Your task to perform on an android device: Open the stopwatch Image 0: 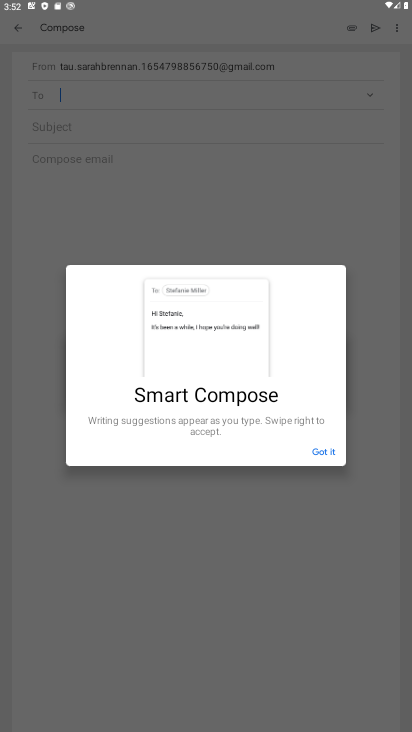
Step 0: press home button
Your task to perform on an android device: Open the stopwatch Image 1: 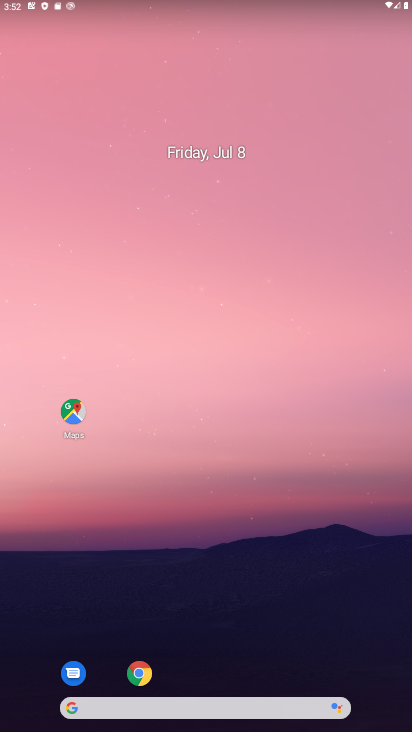
Step 1: drag from (216, 645) to (246, 56)
Your task to perform on an android device: Open the stopwatch Image 2: 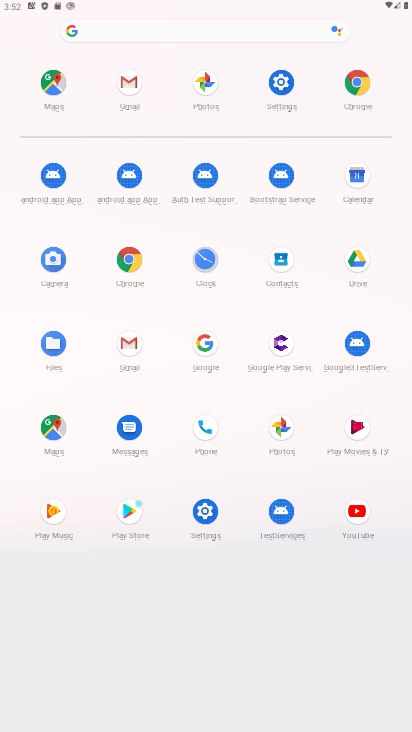
Step 2: click (199, 264)
Your task to perform on an android device: Open the stopwatch Image 3: 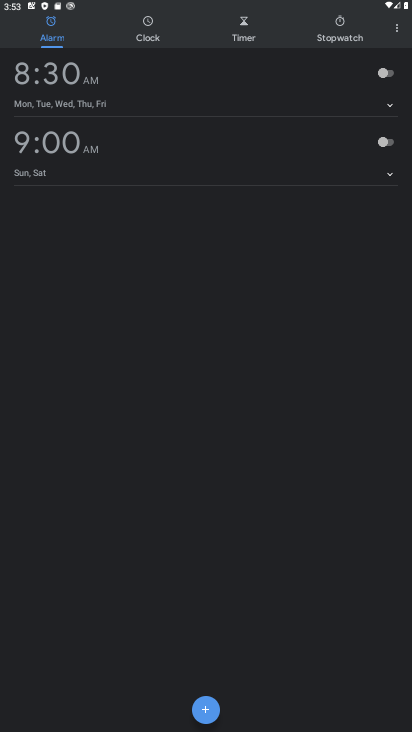
Step 3: click (336, 31)
Your task to perform on an android device: Open the stopwatch Image 4: 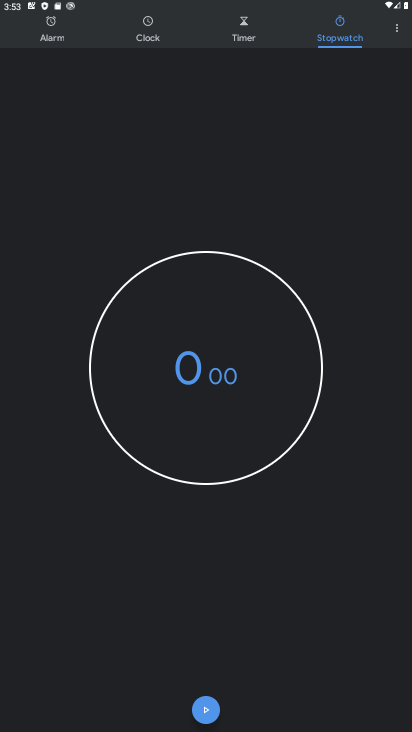
Step 4: task complete